Your task to perform on an android device: toggle location history Image 0: 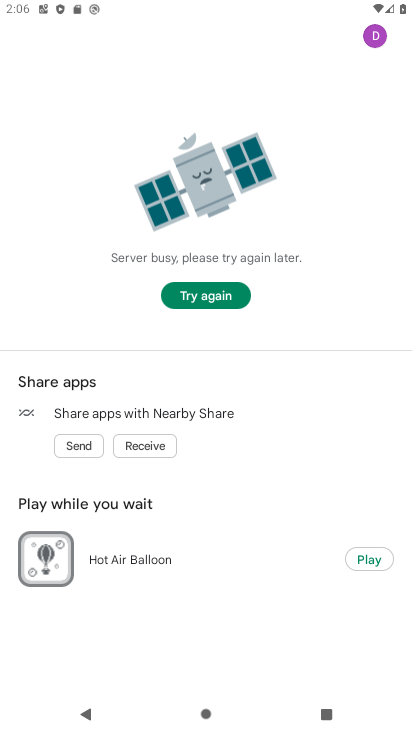
Step 0: press back button
Your task to perform on an android device: toggle location history Image 1: 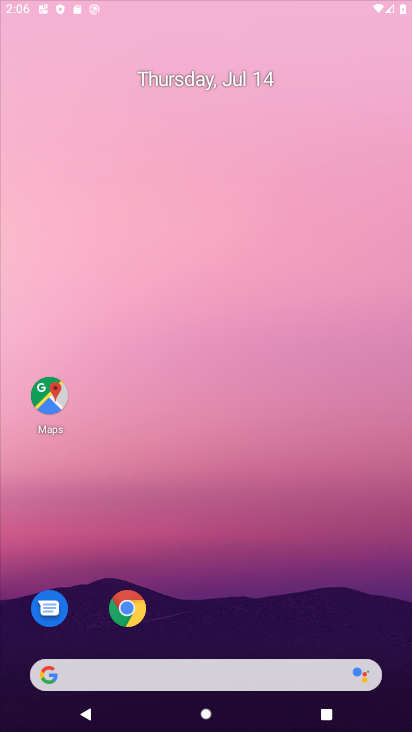
Step 1: press back button
Your task to perform on an android device: toggle location history Image 2: 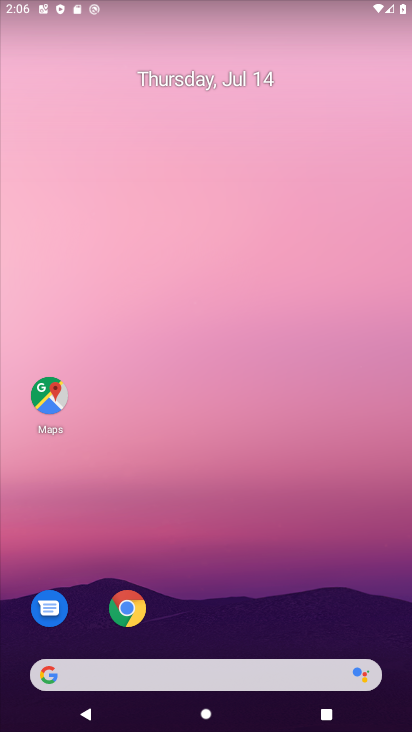
Step 2: drag from (238, 612) to (291, 21)
Your task to perform on an android device: toggle location history Image 3: 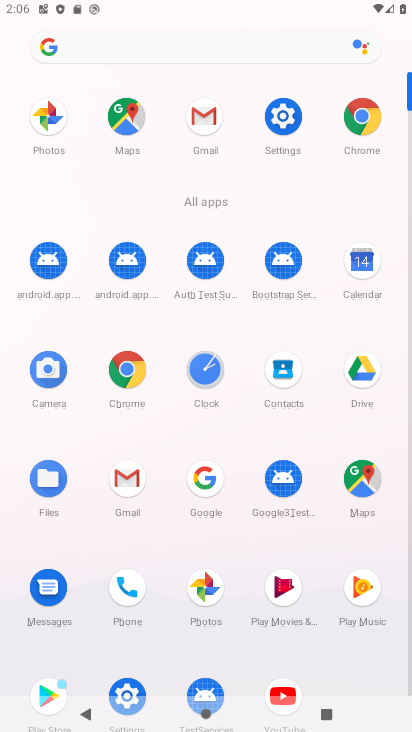
Step 3: click (287, 106)
Your task to perform on an android device: toggle location history Image 4: 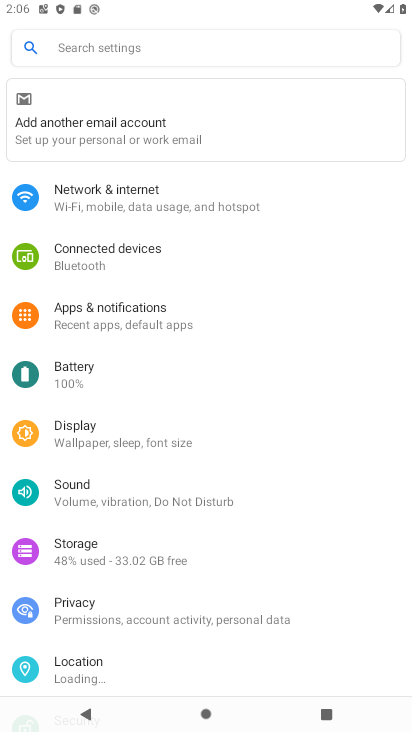
Step 4: click (88, 675)
Your task to perform on an android device: toggle location history Image 5: 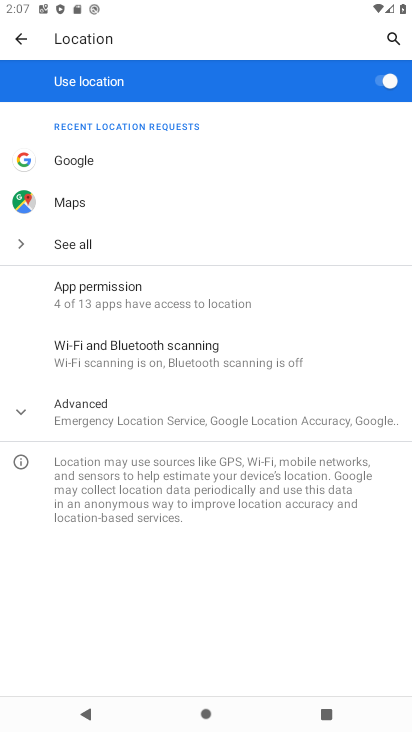
Step 5: click (90, 404)
Your task to perform on an android device: toggle location history Image 6: 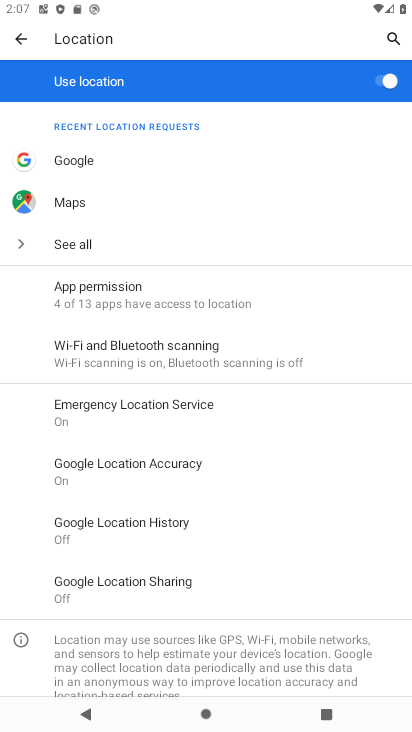
Step 6: click (116, 523)
Your task to perform on an android device: toggle location history Image 7: 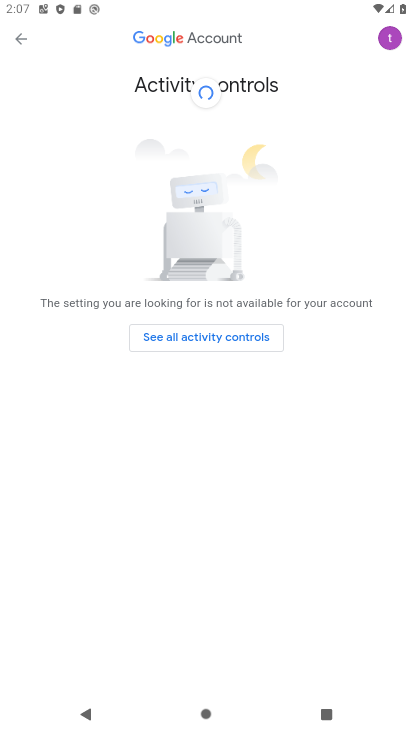
Step 7: task complete